Your task to perform on an android device: Go to wifi settings Image 0: 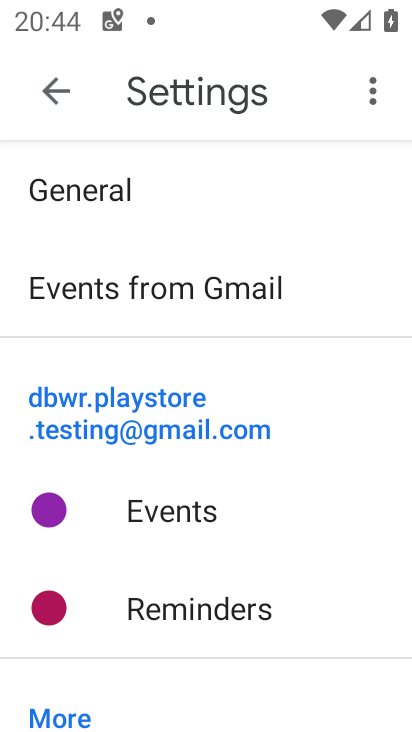
Step 0: drag from (210, 15) to (244, 642)
Your task to perform on an android device: Go to wifi settings Image 1: 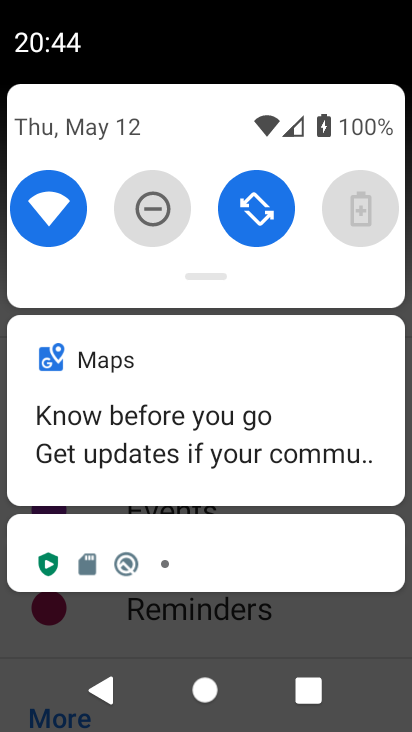
Step 1: click (60, 221)
Your task to perform on an android device: Go to wifi settings Image 2: 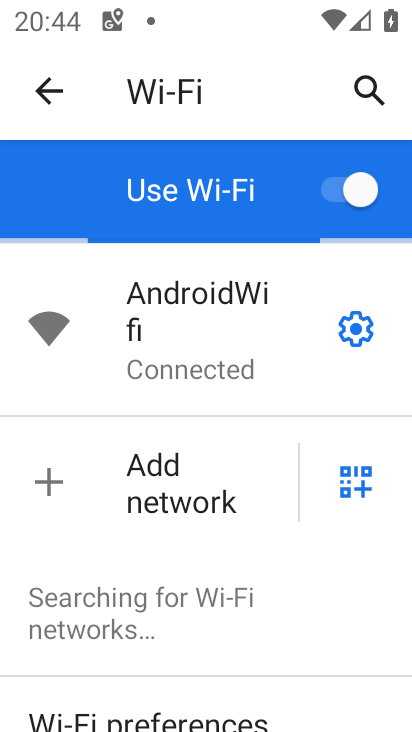
Step 2: task complete